Your task to perform on an android device: empty trash in the gmail app Image 0: 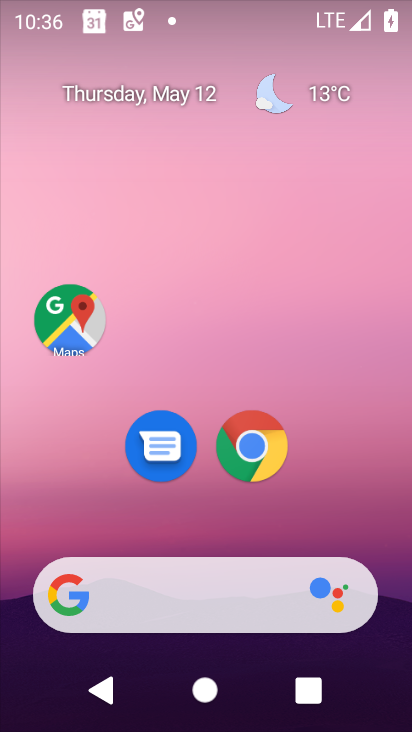
Step 0: drag from (271, 601) to (279, 1)
Your task to perform on an android device: empty trash in the gmail app Image 1: 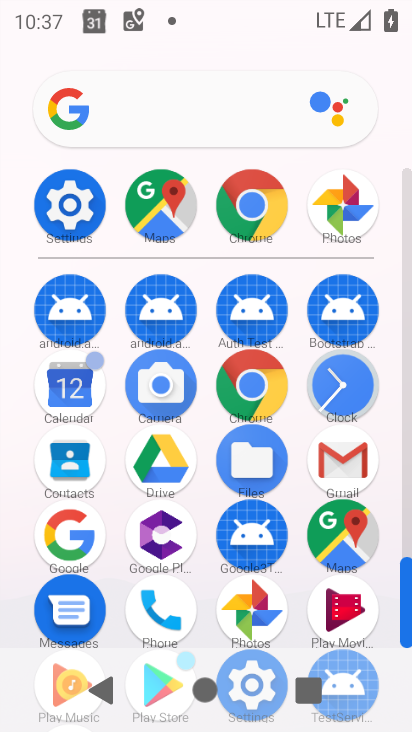
Step 1: click (357, 450)
Your task to perform on an android device: empty trash in the gmail app Image 2: 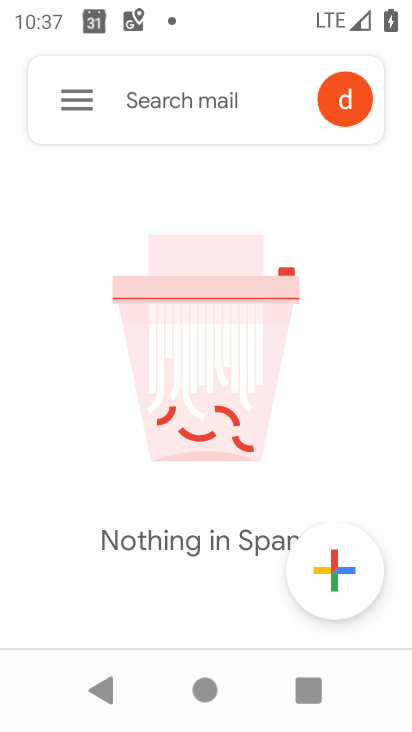
Step 2: click (74, 100)
Your task to perform on an android device: empty trash in the gmail app Image 3: 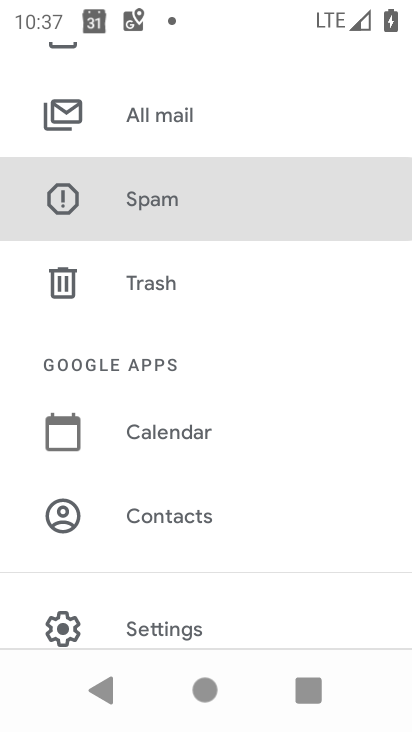
Step 3: click (228, 271)
Your task to perform on an android device: empty trash in the gmail app Image 4: 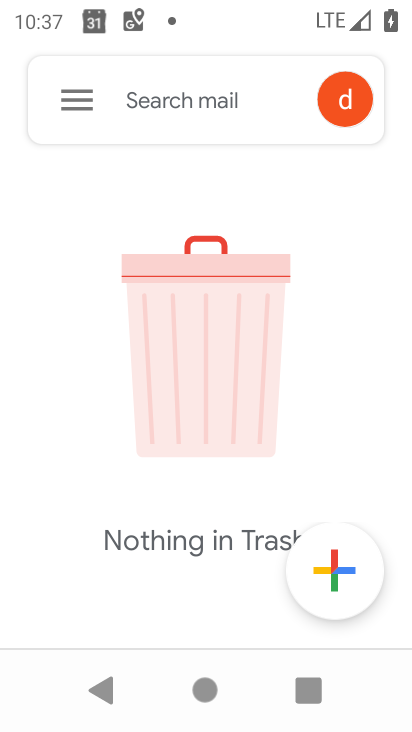
Step 4: task complete